Your task to perform on an android device: Go to wifi settings Image 0: 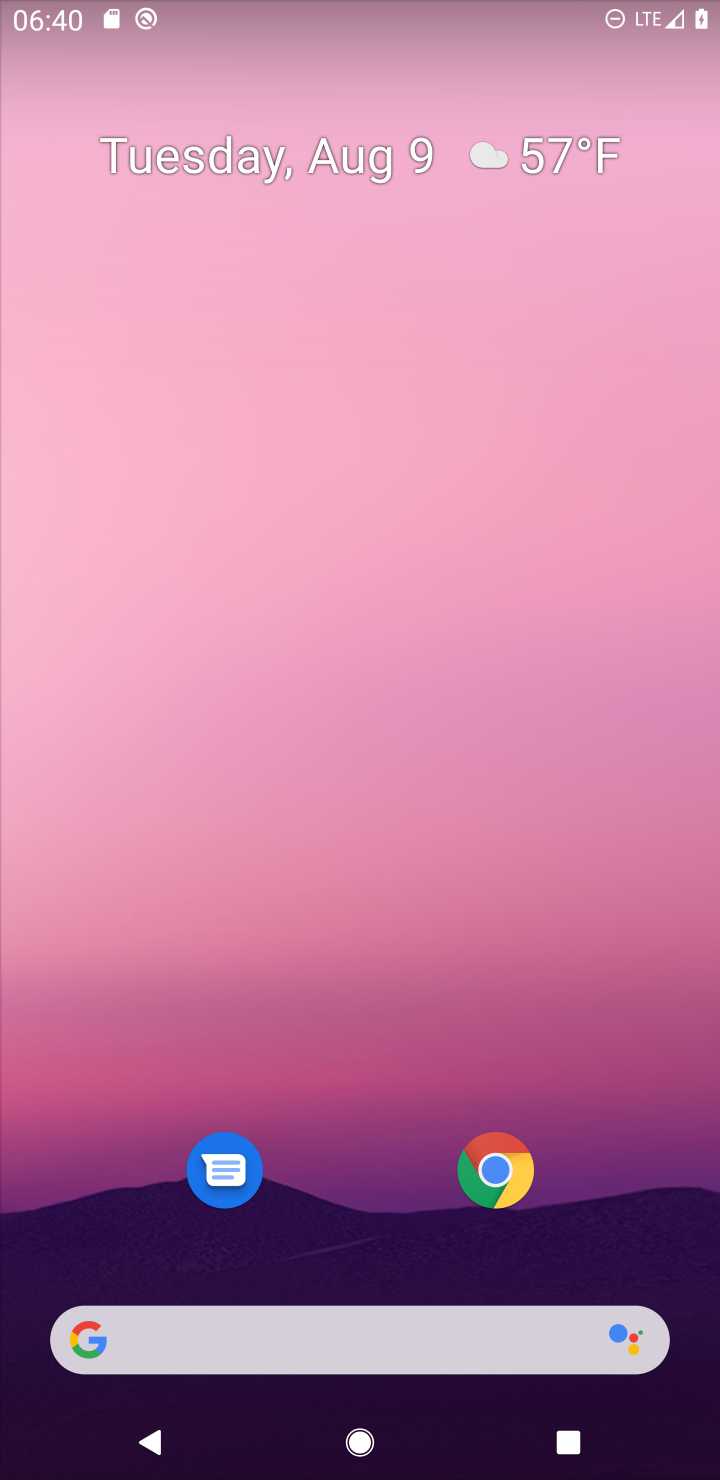
Step 0: drag from (361, 565) to (449, 11)
Your task to perform on an android device: Go to wifi settings Image 1: 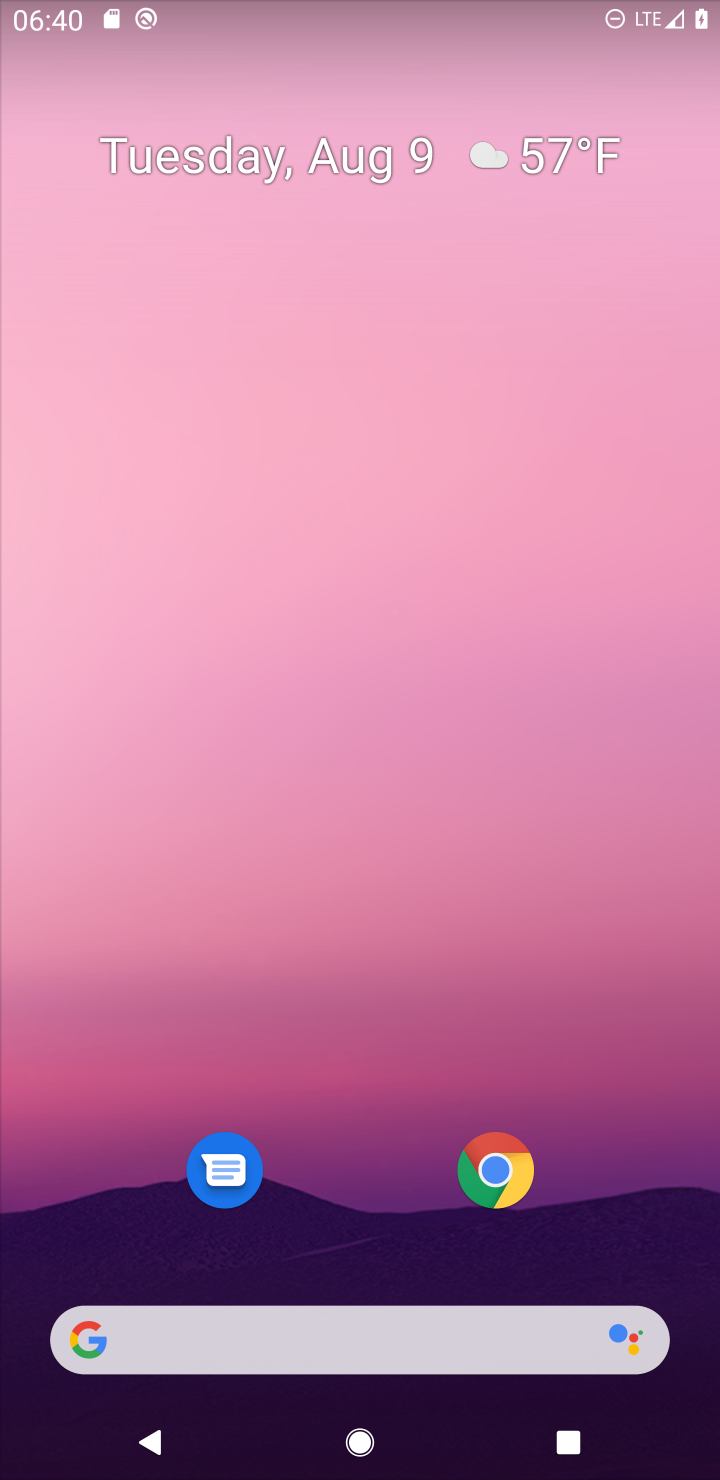
Step 1: drag from (291, 698) to (22, 411)
Your task to perform on an android device: Go to wifi settings Image 2: 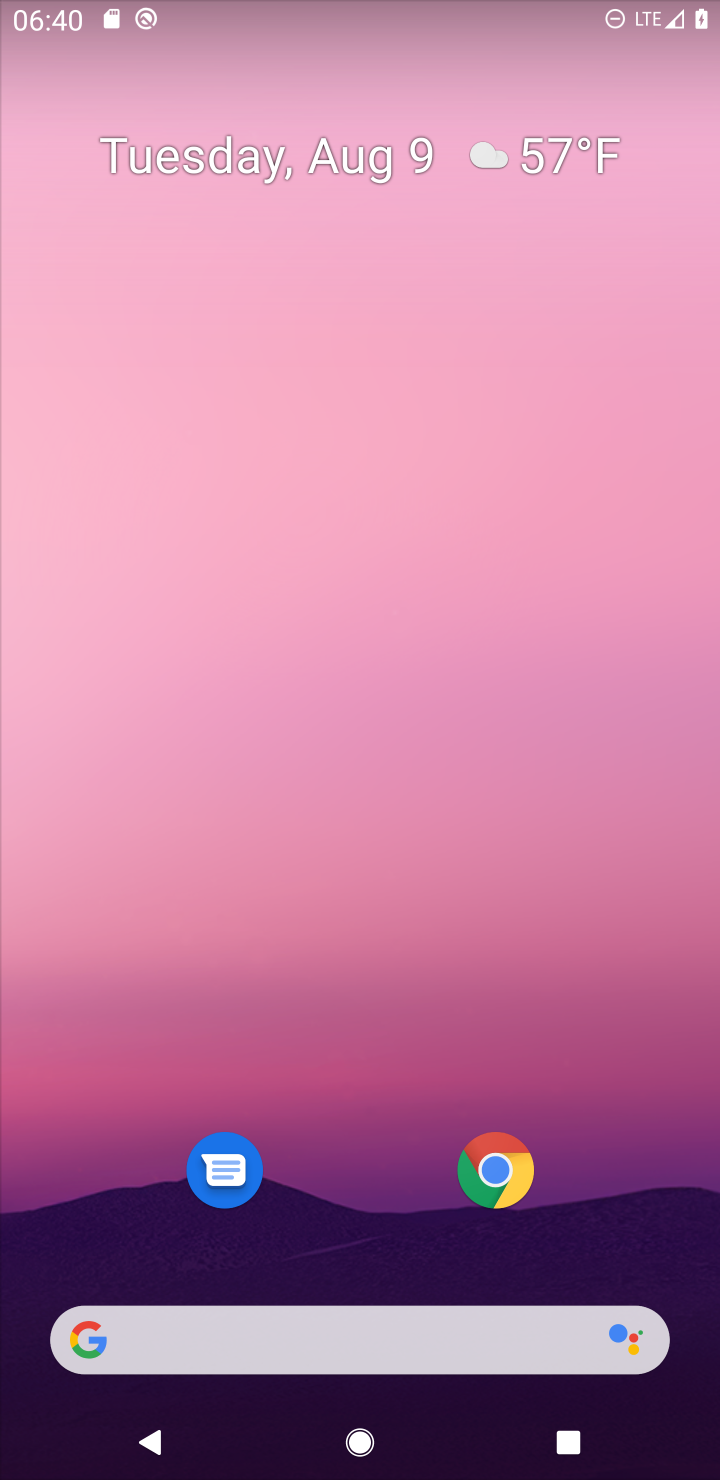
Step 2: drag from (349, 1232) to (394, 55)
Your task to perform on an android device: Go to wifi settings Image 3: 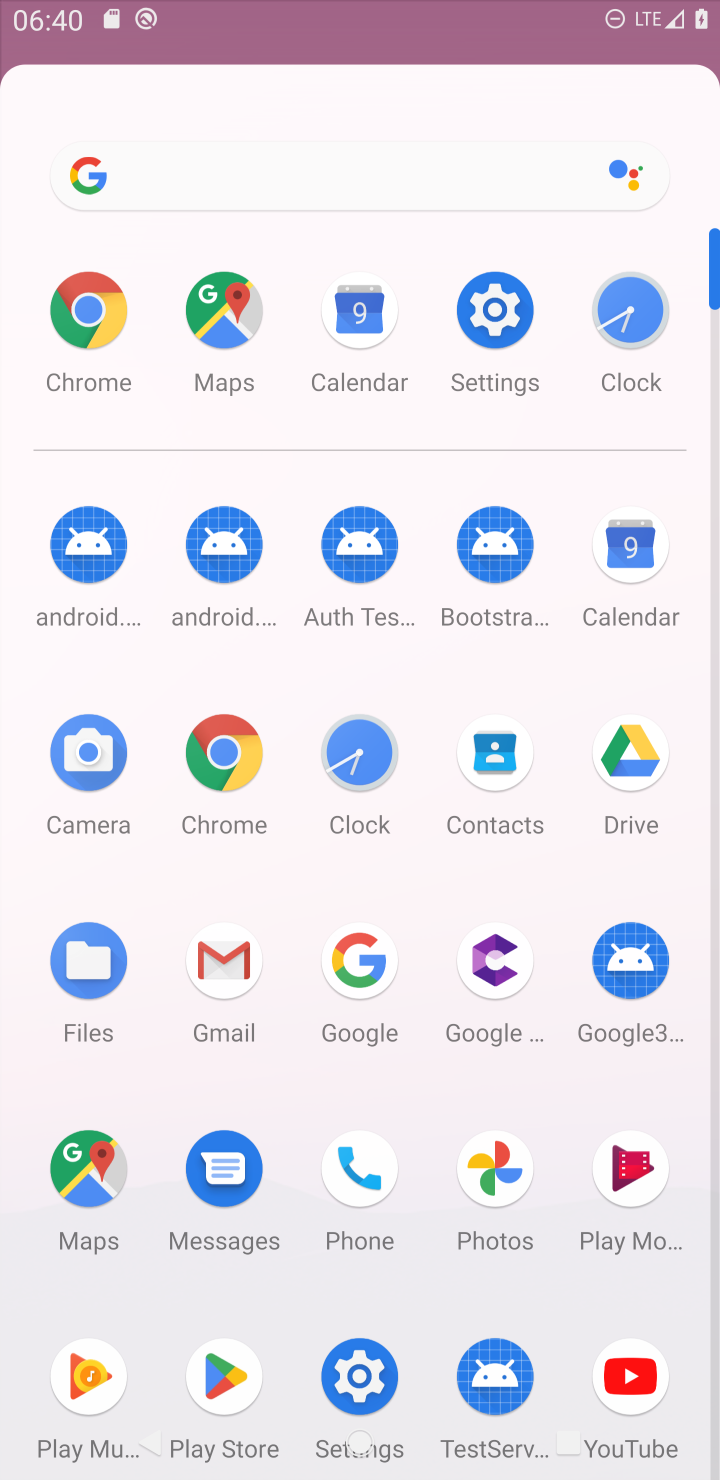
Step 3: click (486, 269)
Your task to perform on an android device: Go to wifi settings Image 4: 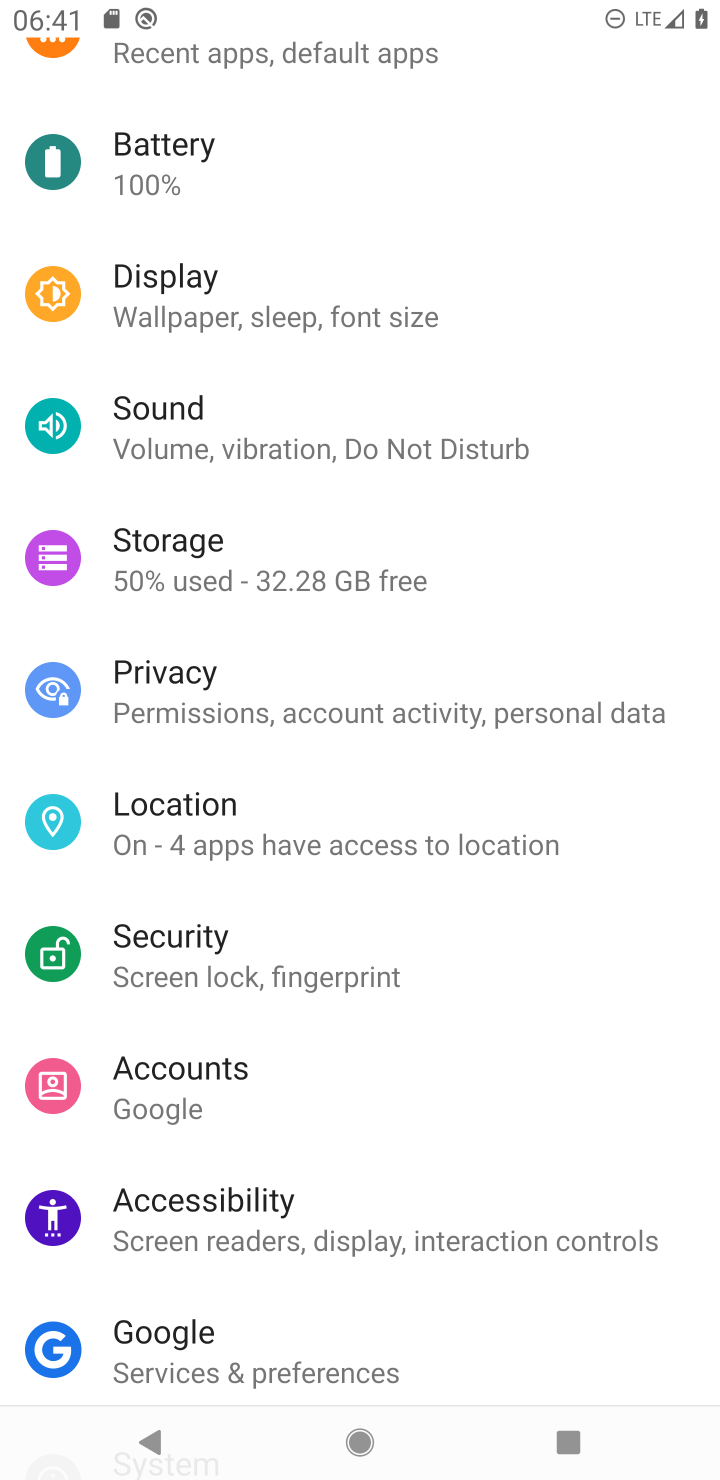
Step 4: drag from (518, 240) to (560, 1371)
Your task to perform on an android device: Go to wifi settings Image 5: 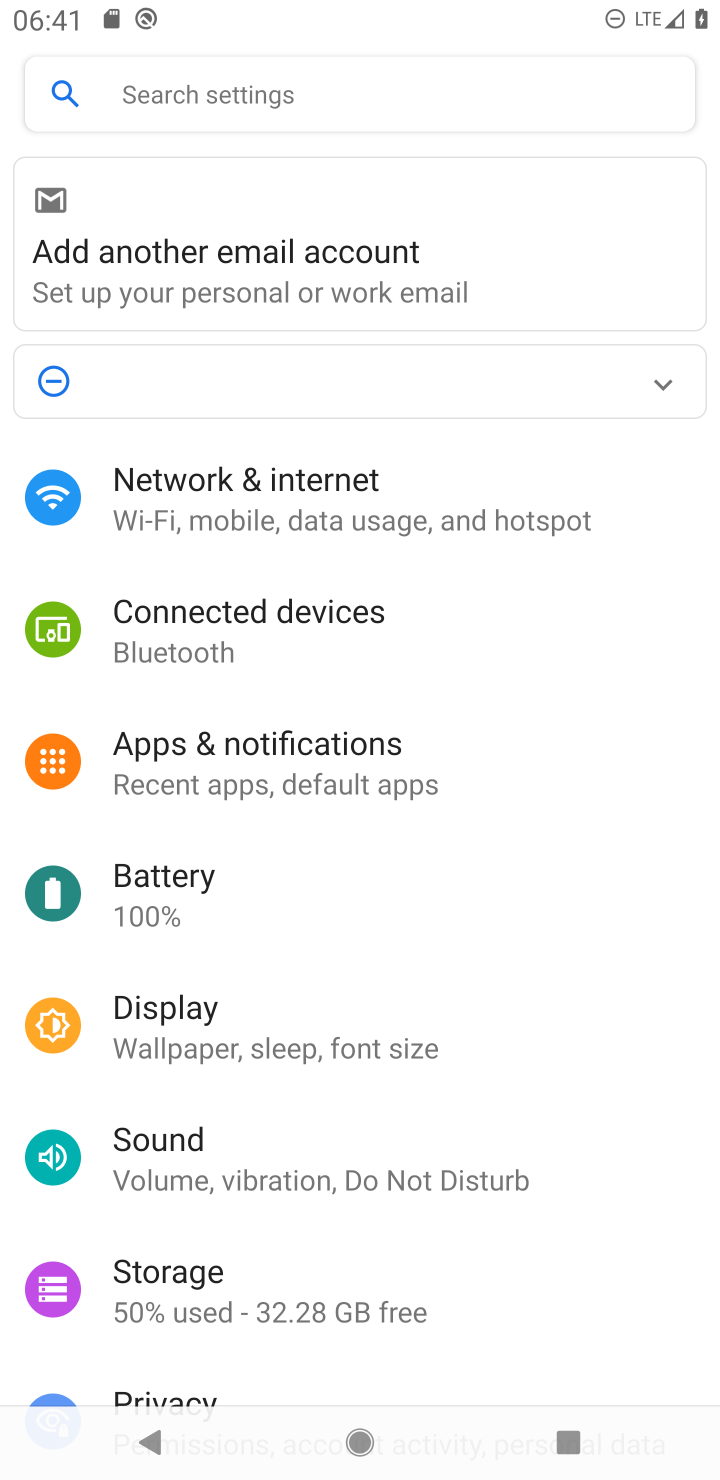
Step 5: click (199, 499)
Your task to perform on an android device: Go to wifi settings Image 6: 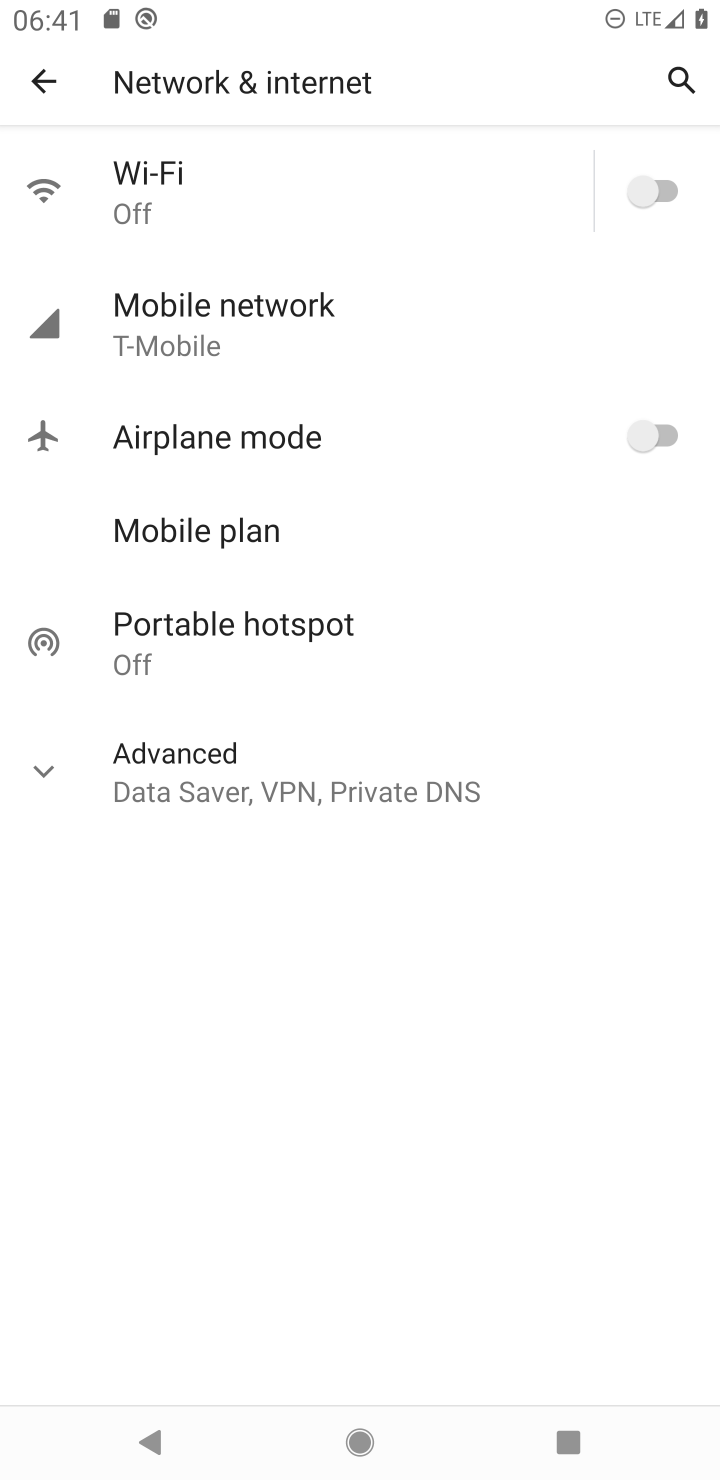
Step 6: click (146, 177)
Your task to perform on an android device: Go to wifi settings Image 7: 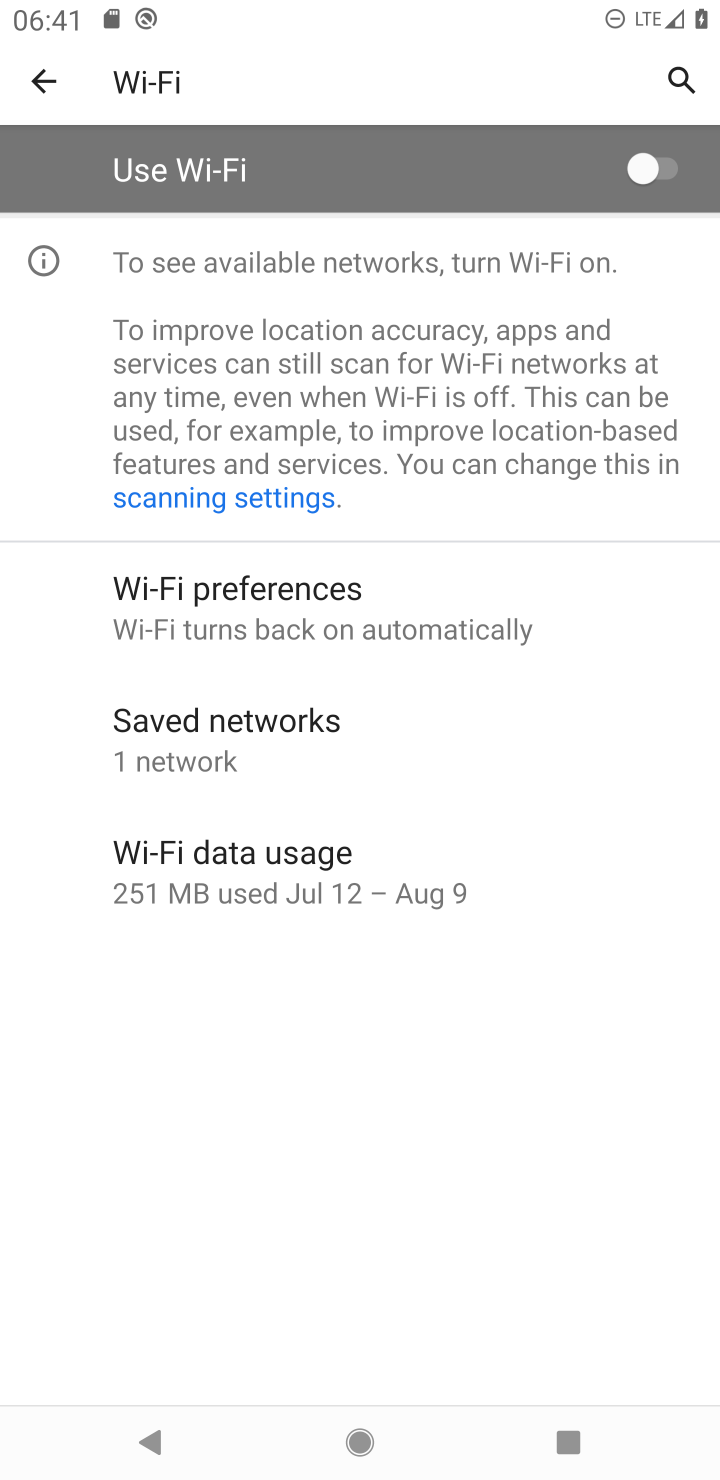
Step 7: click (642, 168)
Your task to perform on an android device: Go to wifi settings Image 8: 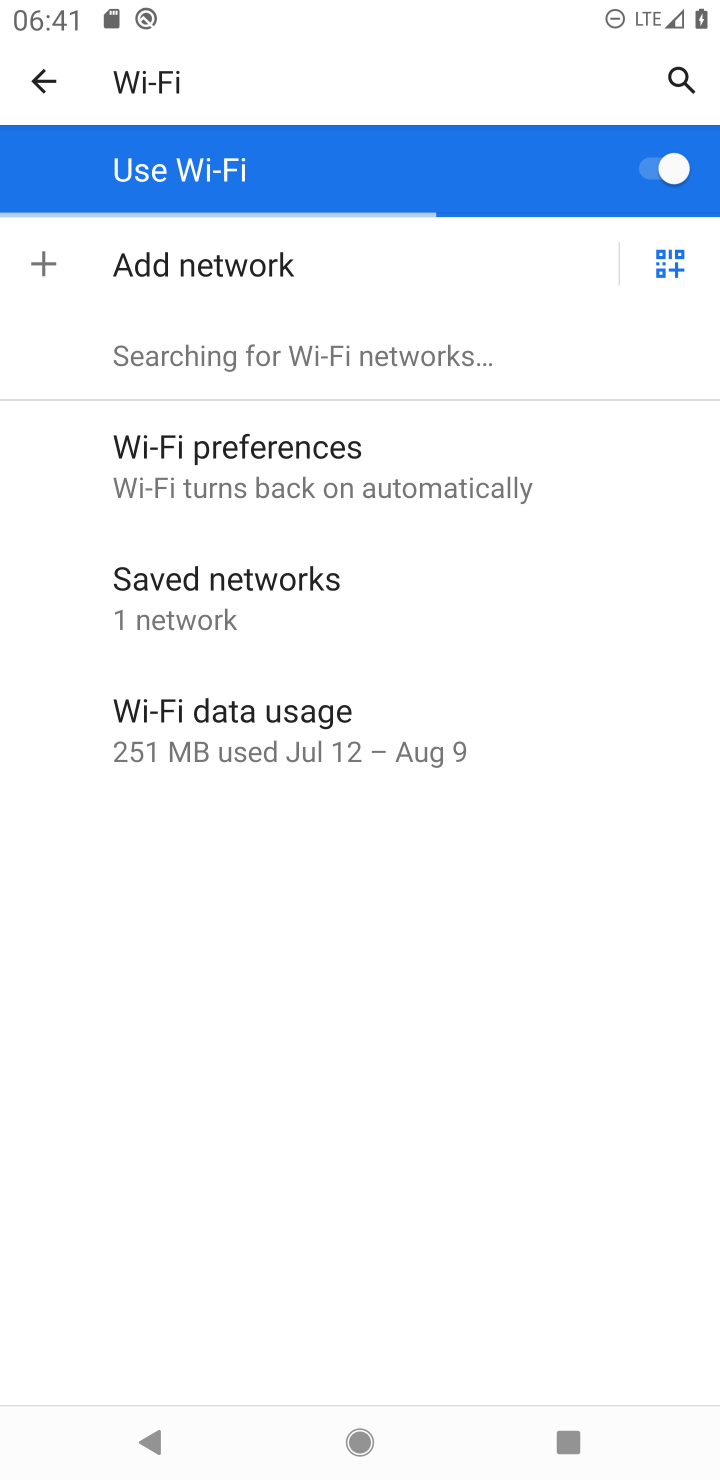
Step 8: task complete